Your task to perform on an android device: Go to notification settings Image 0: 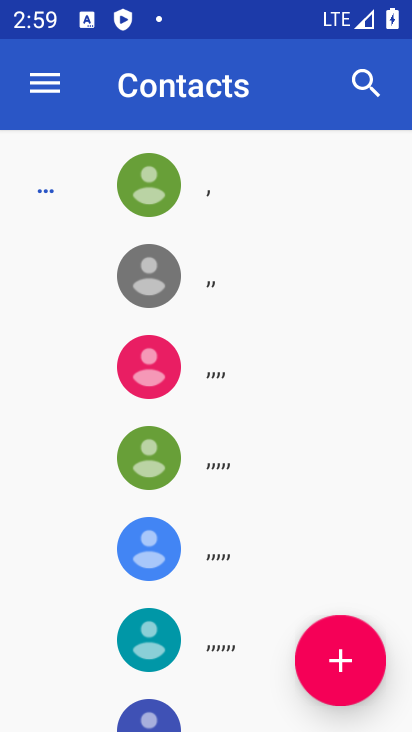
Step 0: press home button
Your task to perform on an android device: Go to notification settings Image 1: 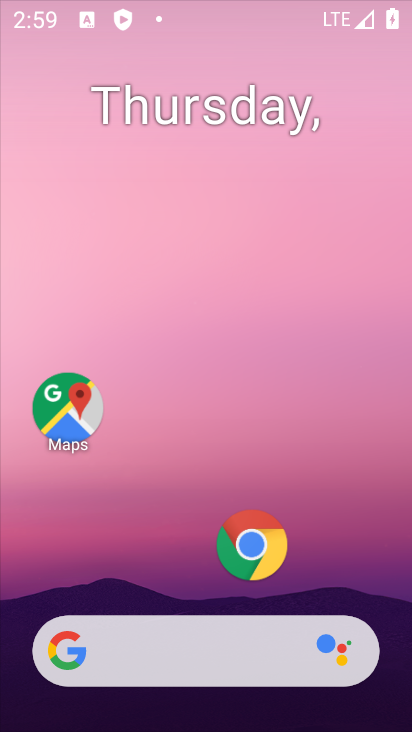
Step 1: drag from (296, 660) to (301, 31)
Your task to perform on an android device: Go to notification settings Image 2: 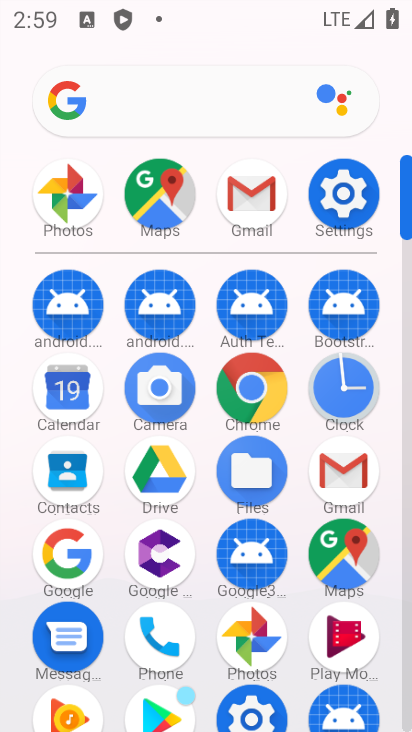
Step 2: click (344, 205)
Your task to perform on an android device: Go to notification settings Image 3: 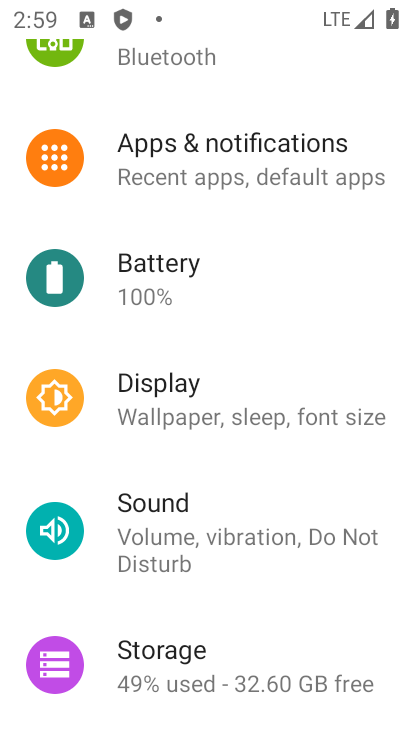
Step 3: click (243, 161)
Your task to perform on an android device: Go to notification settings Image 4: 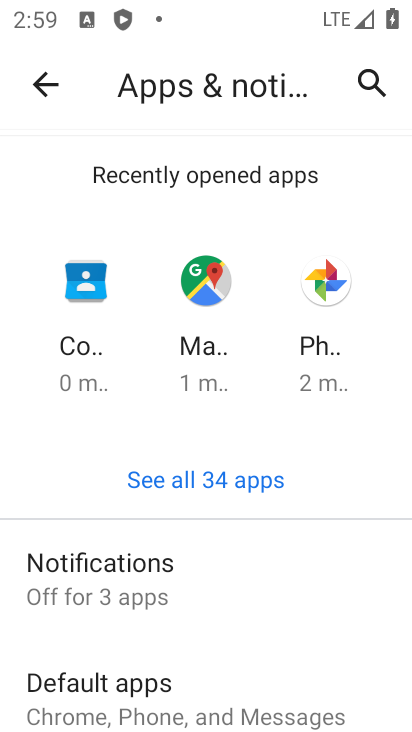
Step 4: drag from (370, 574) to (398, 129)
Your task to perform on an android device: Go to notification settings Image 5: 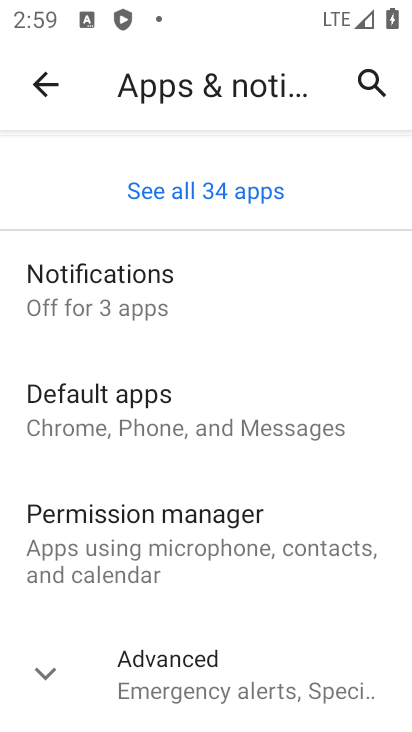
Step 5: click (123, 292)
Your task to perform on an android device: Go to notification settings Image 6: 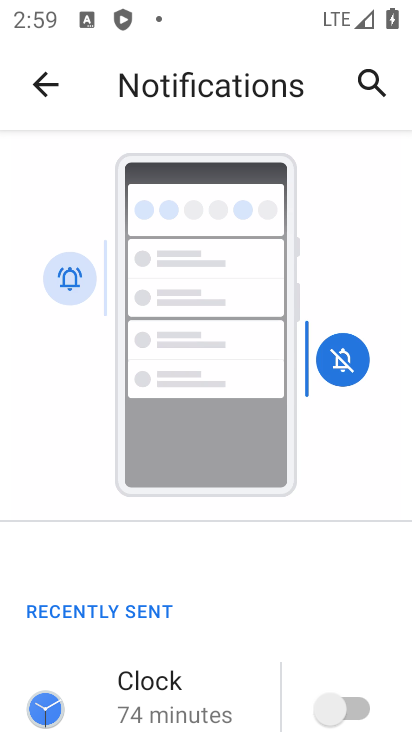
Step 6: drag from (258, 627) to (271, 274)
Your task to perform on an android device: Go to notification settings Image 7: 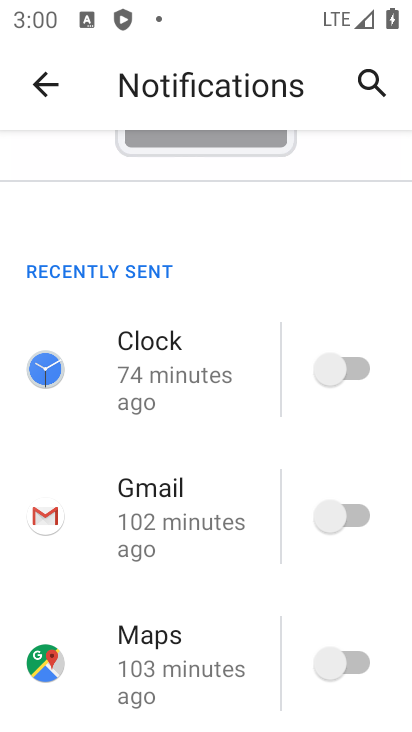
Step 7: press home button
Your task to perform on an android device: Go to notification settings Image 8: 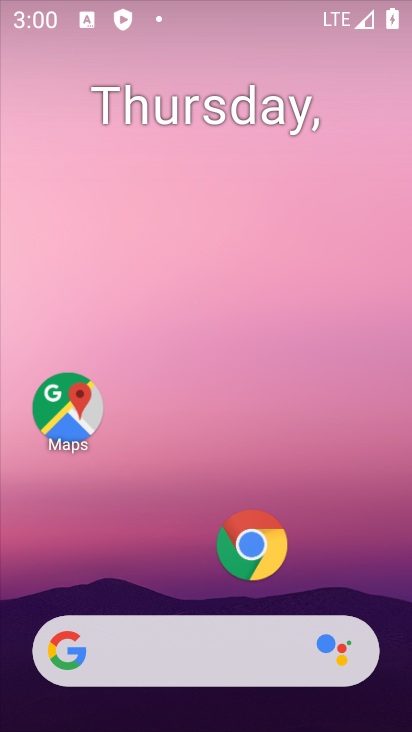
Step 8: drag from (288, 630) to (291, 12)
Your task to perform on an android device: Go to notification settings Image 9: 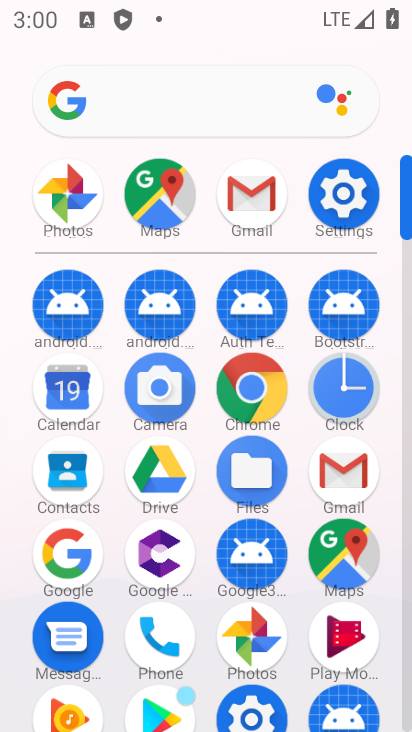
Step 9: click (360, 200)
Your task to perform on an android device: Go to notification settings Image 10: 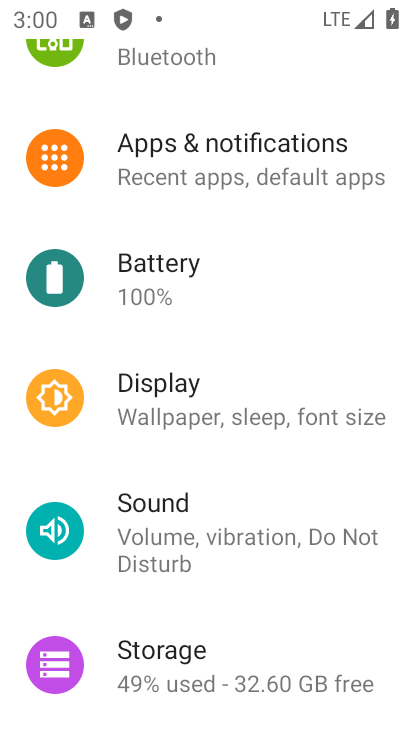
Step 10: click (338, 184)
Your task to perform on an android device: Go to notification settings Image 11: 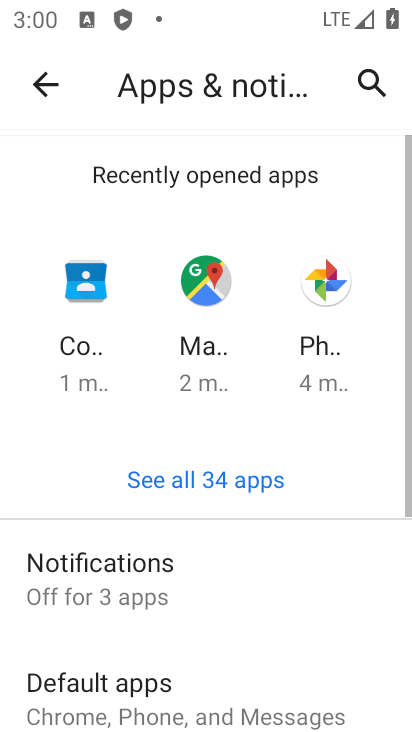
Step 11: drag from (306, 685) to (288, 75)
Your task to perform on an android device: Go to notification settings Image 12: 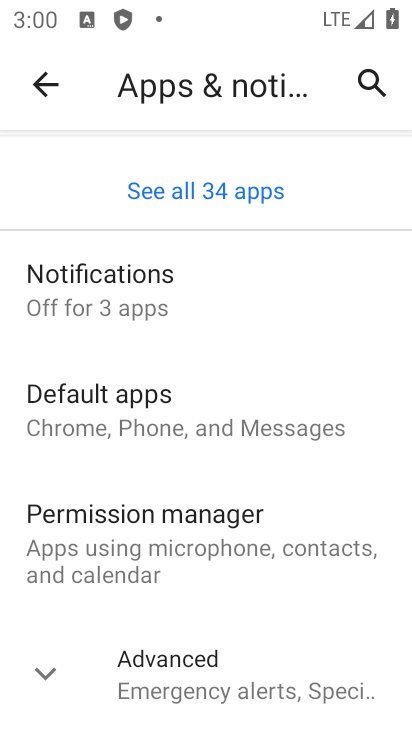
Step 12: click (272, 684)
Your task to perform on an android device: Go to notification settings Image 13: 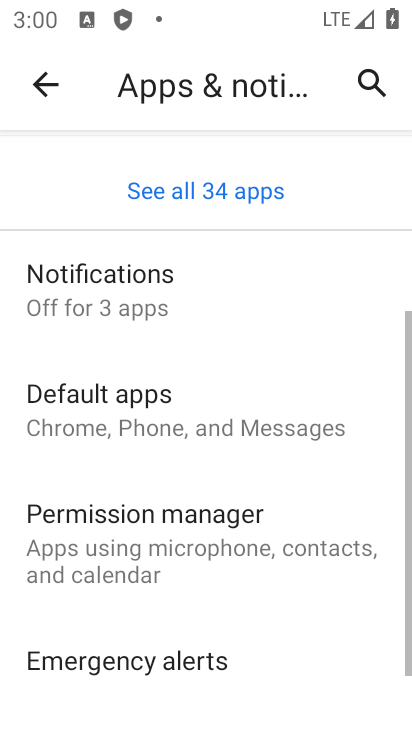
Step 13: drag from (272, 684) to (238, 600)
Your task to perform on an android device: Go to notification settings Image 14: 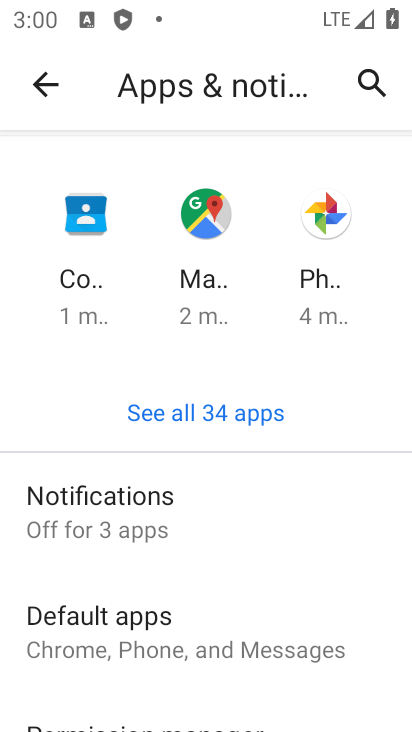
Step 14: click (171, 500)
Your task to perform on an android device: Go to notification settings Image 15: 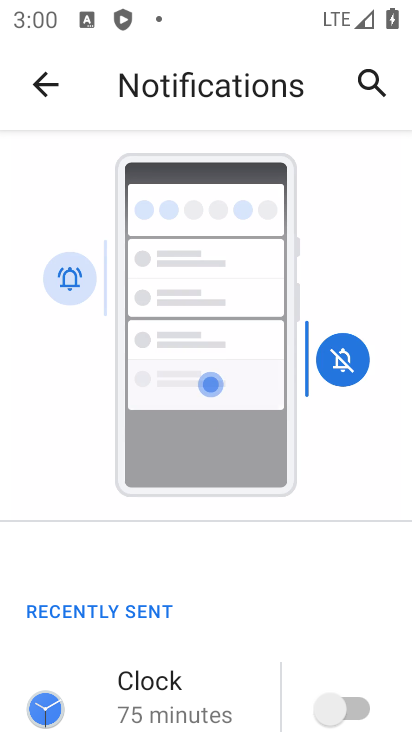
Step 15: task complete